Your task to perform on an android device: Find coffee shops on Maps Image 0: 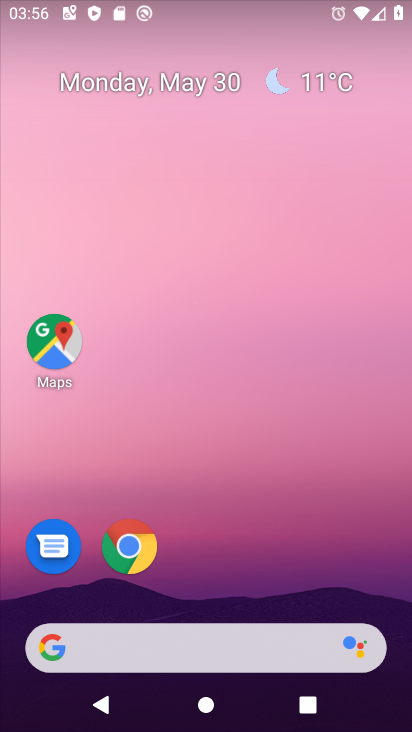
Step 0: press home button
Your task to perform on an android device: Find coffee shops on Maps Image 1: 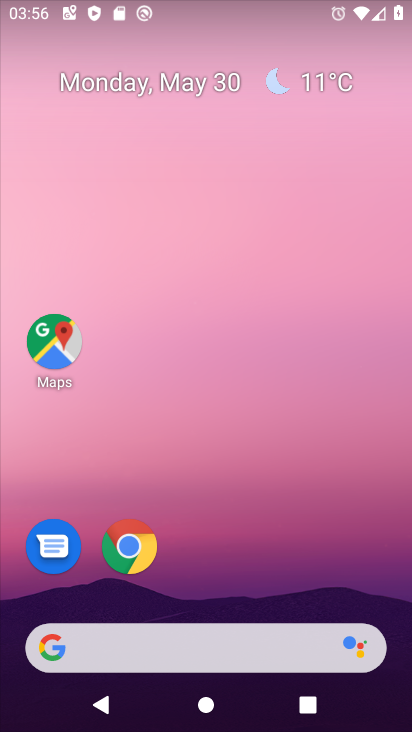
Step 1: drag from (225, 347) to (223, 83)
Your task to perform on an android device: Find coffee shops on Maps Image 2: 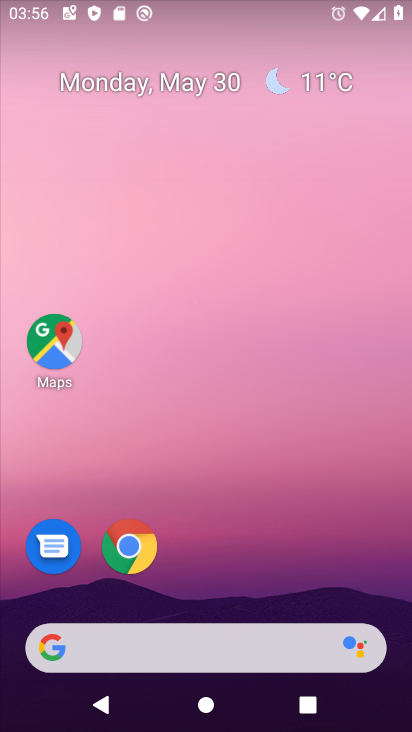
Step 2: drag from (227, 584) to (265, 71)
Your task to perform on an android device: Find coffee shops on Maps Image 3: 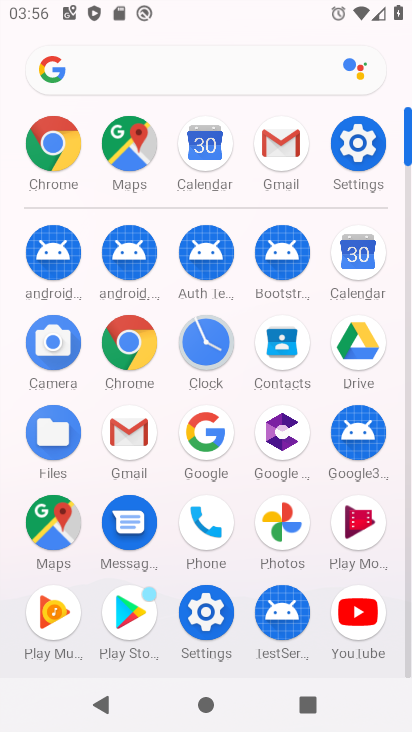
Step 3: click (55, 520)
Your task to perform on an android device: Find coffee shops on Maps Image 4: 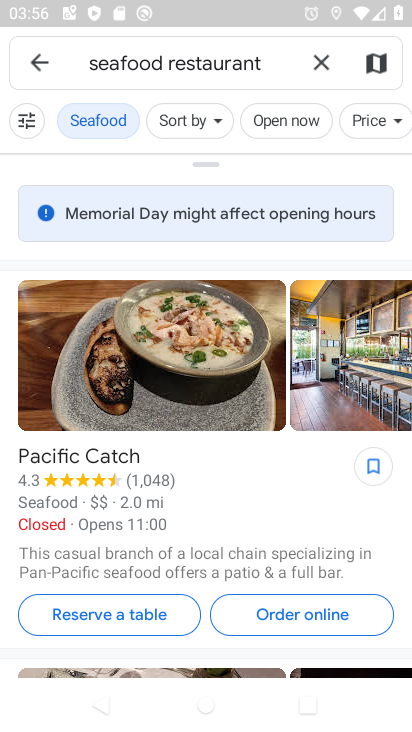
Step 4: click (325, 59)
Your task to perform on an android device: Find coffee shops on Maps Image 5: 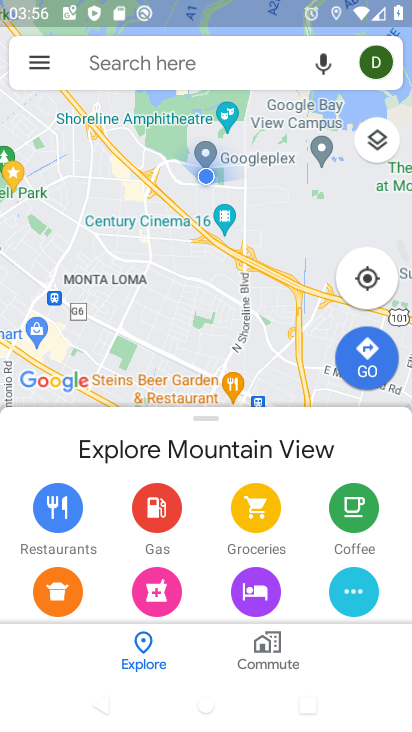
Step 5: click (135, 52)
Your task to perform on an android device: Find coffee shops on Maps Image 6: 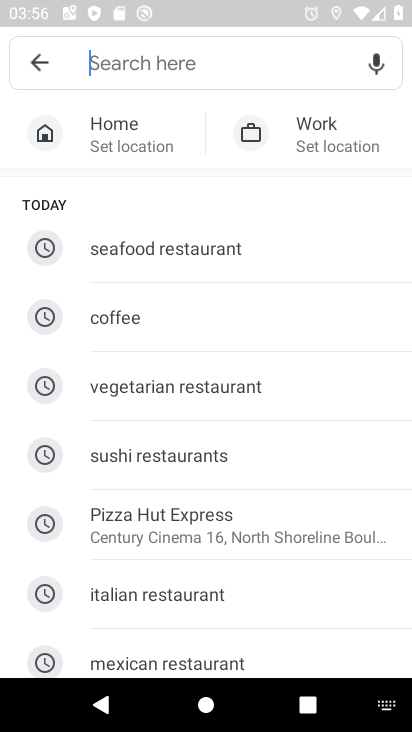
Step 6: click (154, 322)
Your task to perform on an android device: Find coffee shops on Maps Image 7: 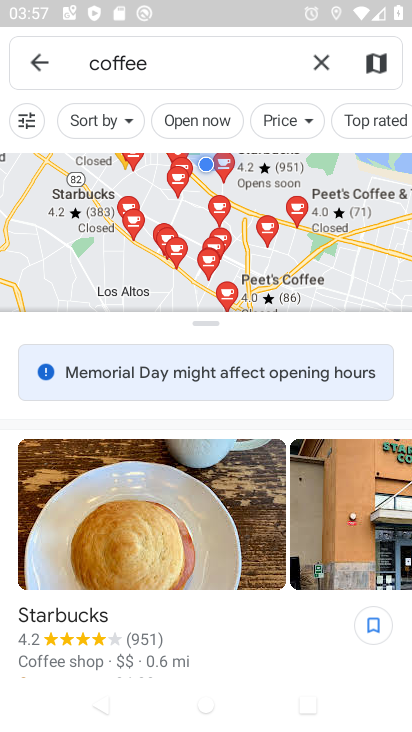
Step 7: task complete